Your task to perform on an android device: check out phone information Image 0: 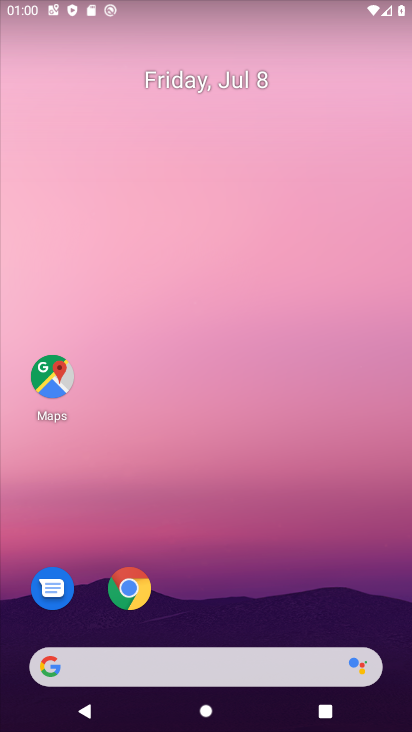
Step 0: drag from (252, 564) to (193, 78)
Your task to perform on an android device: check out phone information Image 1: 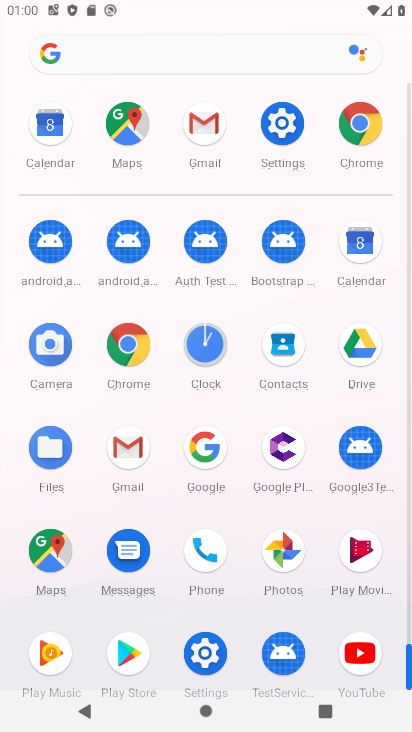
Step 1: click (283, 121)
Your task to perform on an android device: check out phone information Image 2: 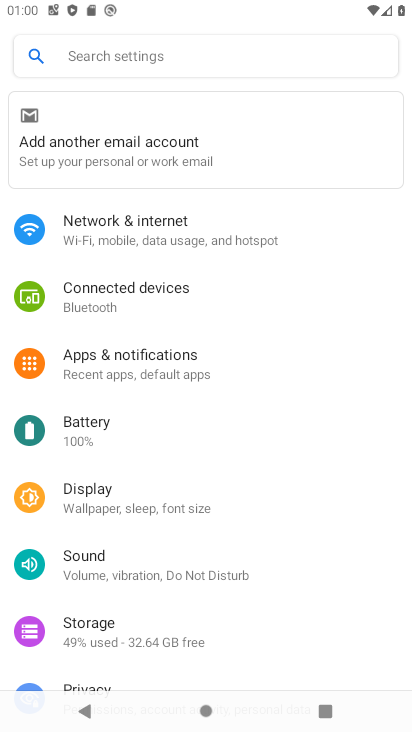
Step 2: drag from (191, 529) to (186, 107)
Your task to perform on an android device: check out phone information Image 3: 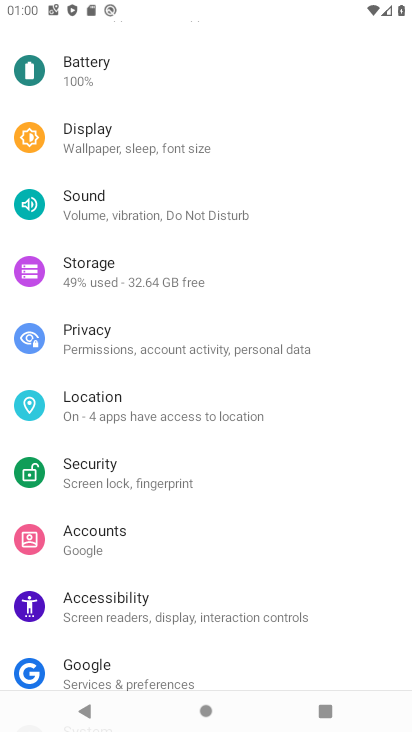
Step 3: drag from (139, 574) to (157, 171)
Your task to perform on an android device: check out phone information Image 4: 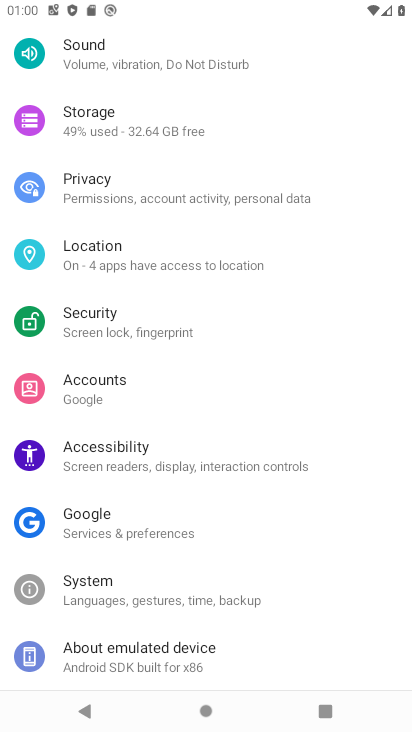
Step 4: click (153, 636)
Your task to perform on an android device: check out phone information Image 5: 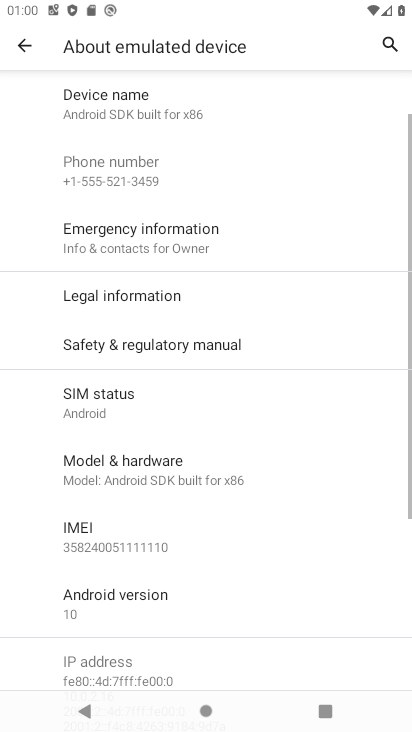
Step 5: task complete